Your task to perform on an android device: find snoozed emails in the gmail app Image 0: 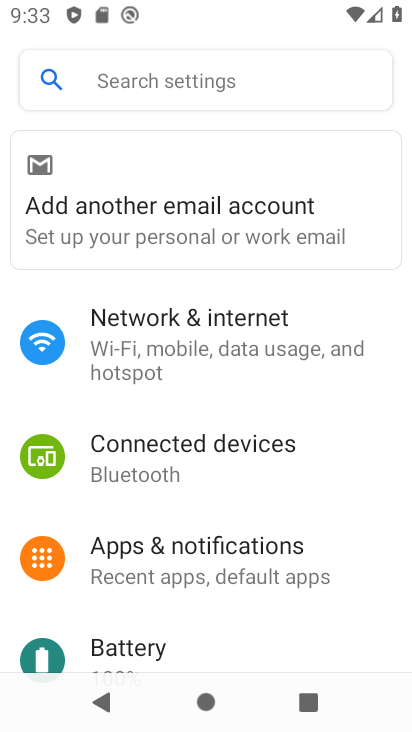
Step 0: press home button
Your task to perform on an android device: find snoozed emails in the gmail app Image 1: 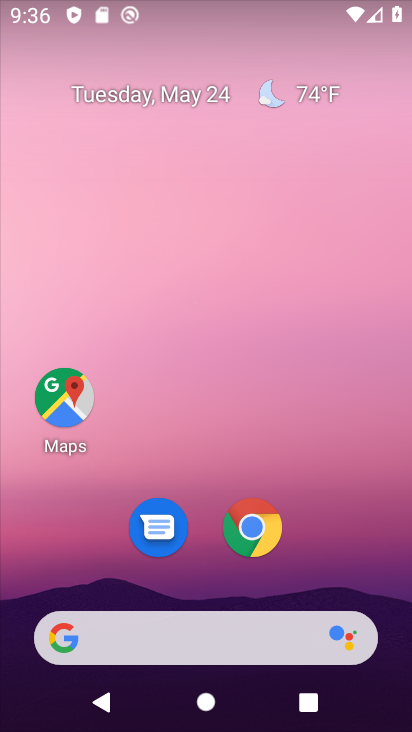
Step 1: drag from (181, 570) to (384, 419)
Your task to perform on an android device: find snoozed emails in the gmail app Image 2: 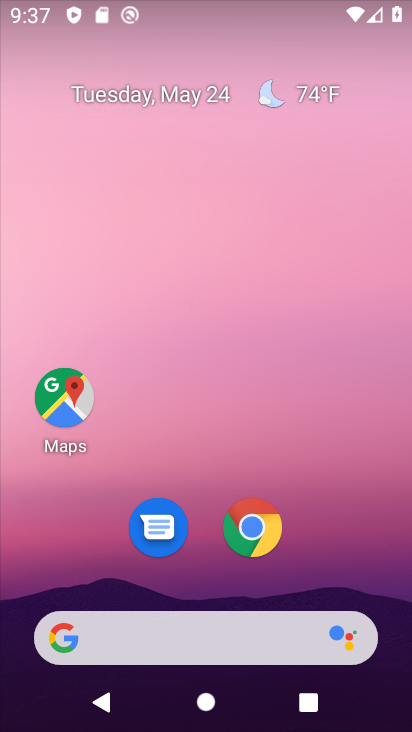
Step 2: drag from (279, 574) to (234, 54)
Your task to perform on an android device: find snoozed emails in the gmail app Image 3: 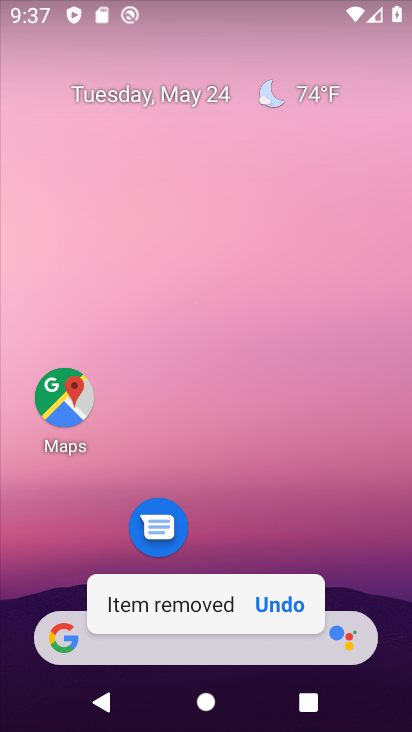
Step 3: drag from (237, 549) to (189, 59)
Your task to perform on an android device: find snoozed emails in the gmail app Image 4: 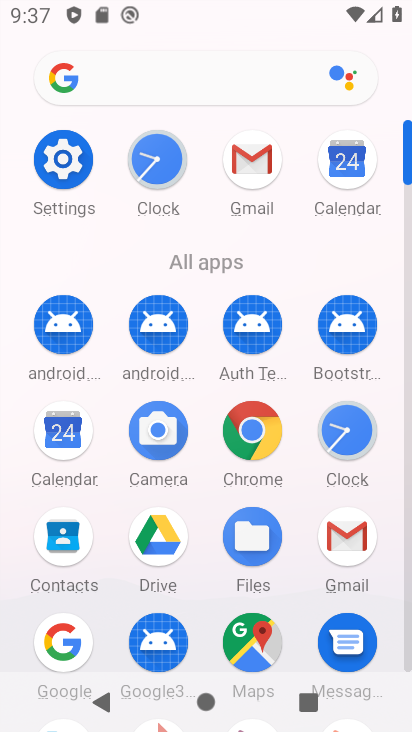
Step 4: click (362, 538)
Your task to perform on an android device: find snoozed emails in the gmail app Image 5: 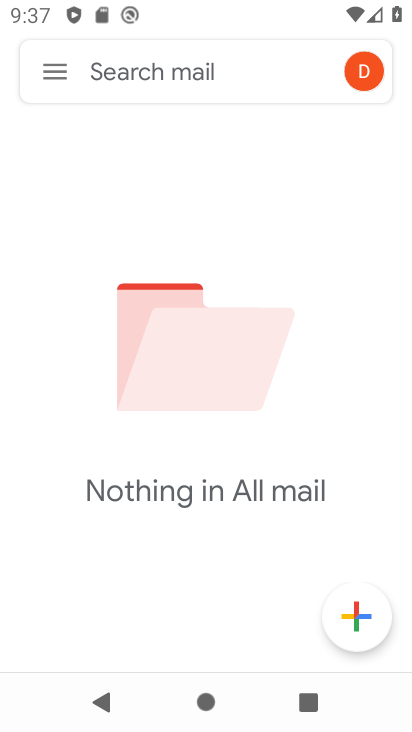
Step 5: click (55, 78)
Your task to perform on an android device: find snoozed emails in the gmail app Image 6: 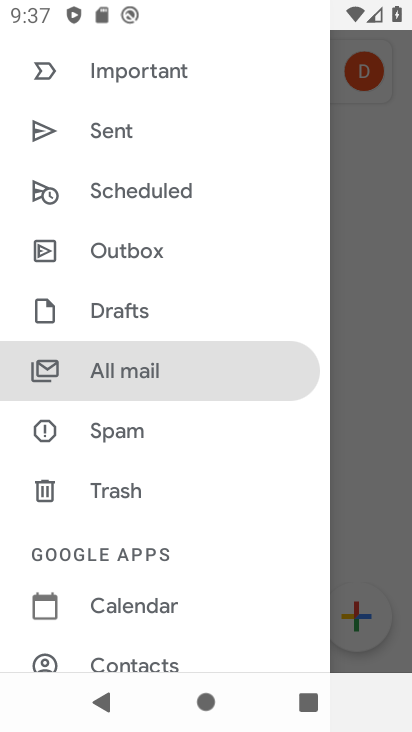
Step 6: drag from (116, 173) to (125, 437)
Your task to perform on an android device: find snoozed emails in the gmail app Image 7: 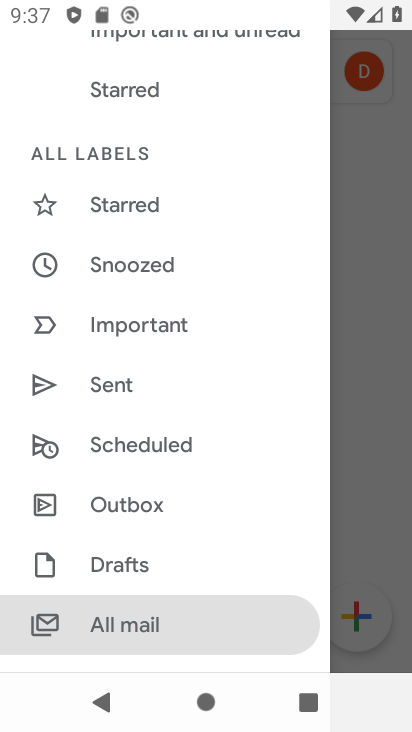
Step 7: click (114, 274)
Your task to perform on an android device: find snoozed emails in the gmail app Image 8: 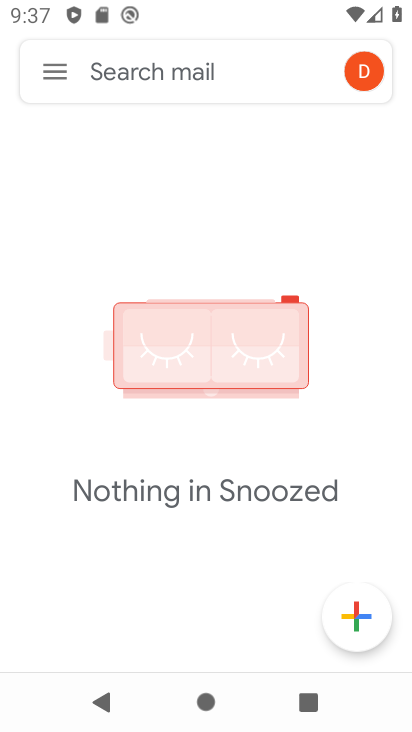
Step 8: task complete